Your task to perform on an android device: Add "dell xps" to the cart on bestbuy.com, then select checkout. Image 0: 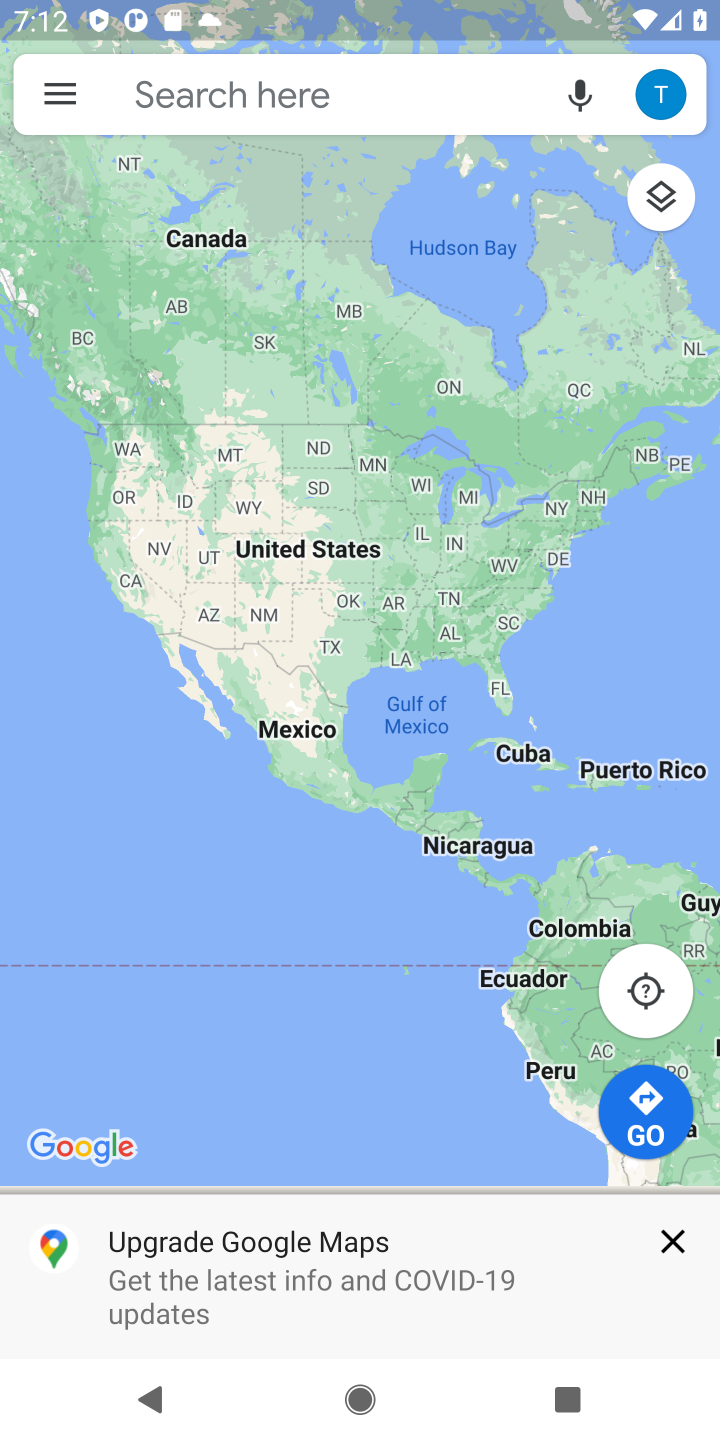
Step 0: press home button
Your task to perform on an android device: Add "dell xps" to the cart on bestbuy.com, then select checkout. Image 1: 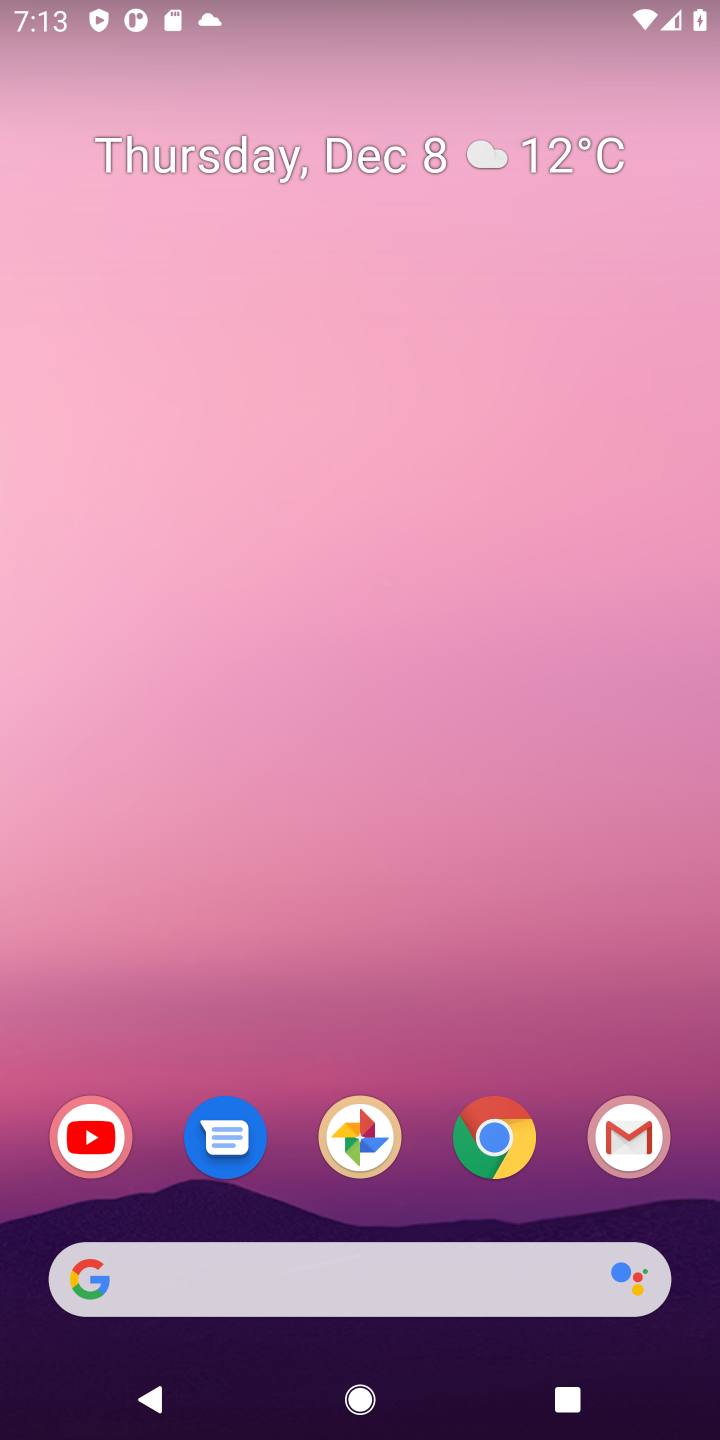
Step 1: click (484, 1154)
Your task to perform on an android device: Add "dell xps" to the cart on bestbuy.com, then select checkout. Image 2: 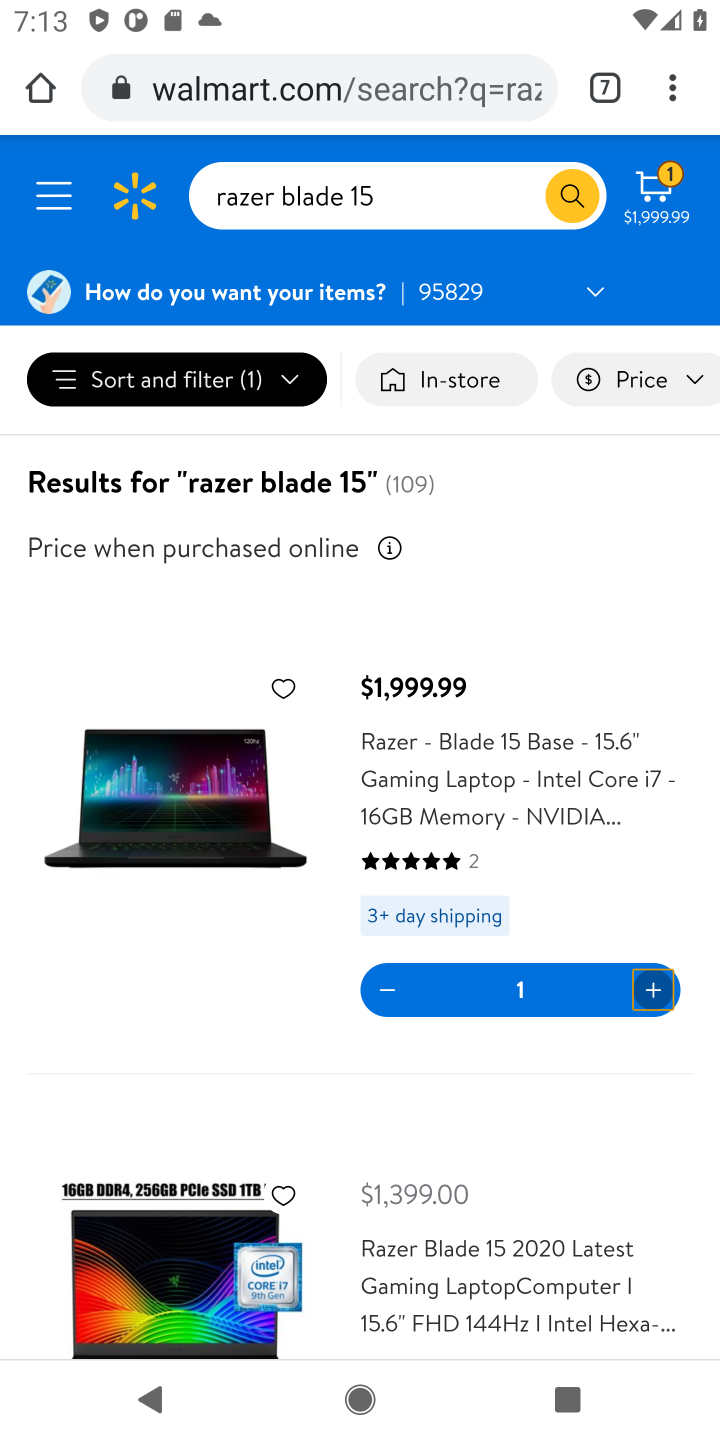
Step 2: click (594, 70)
Your task to perform on an android device: Add "dell xps" to the cart on bestbuy.com, then select checkout. Image 3: 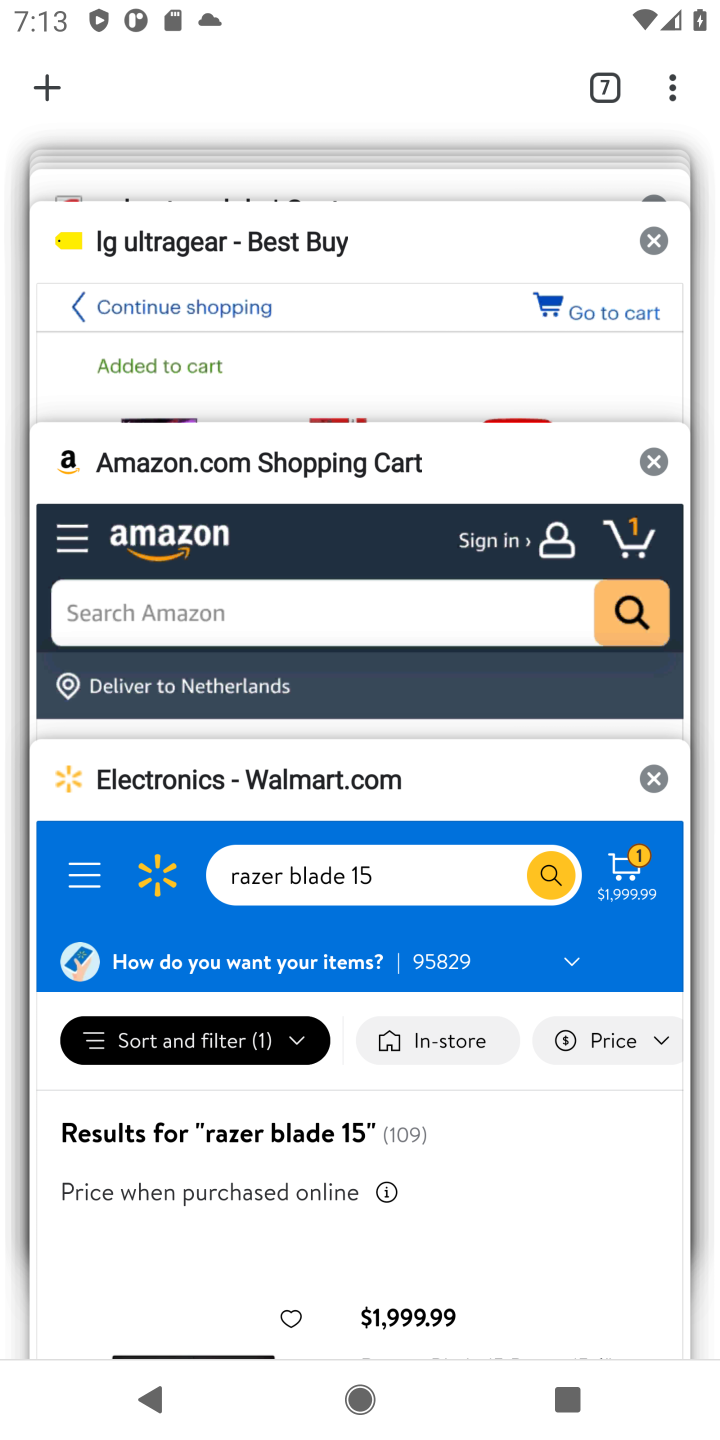
Step 3: click (367, 283)
Your task to perform on an android device: Add "dell xps" to the cart on bestbuy.com, then select checkout. Image 4: 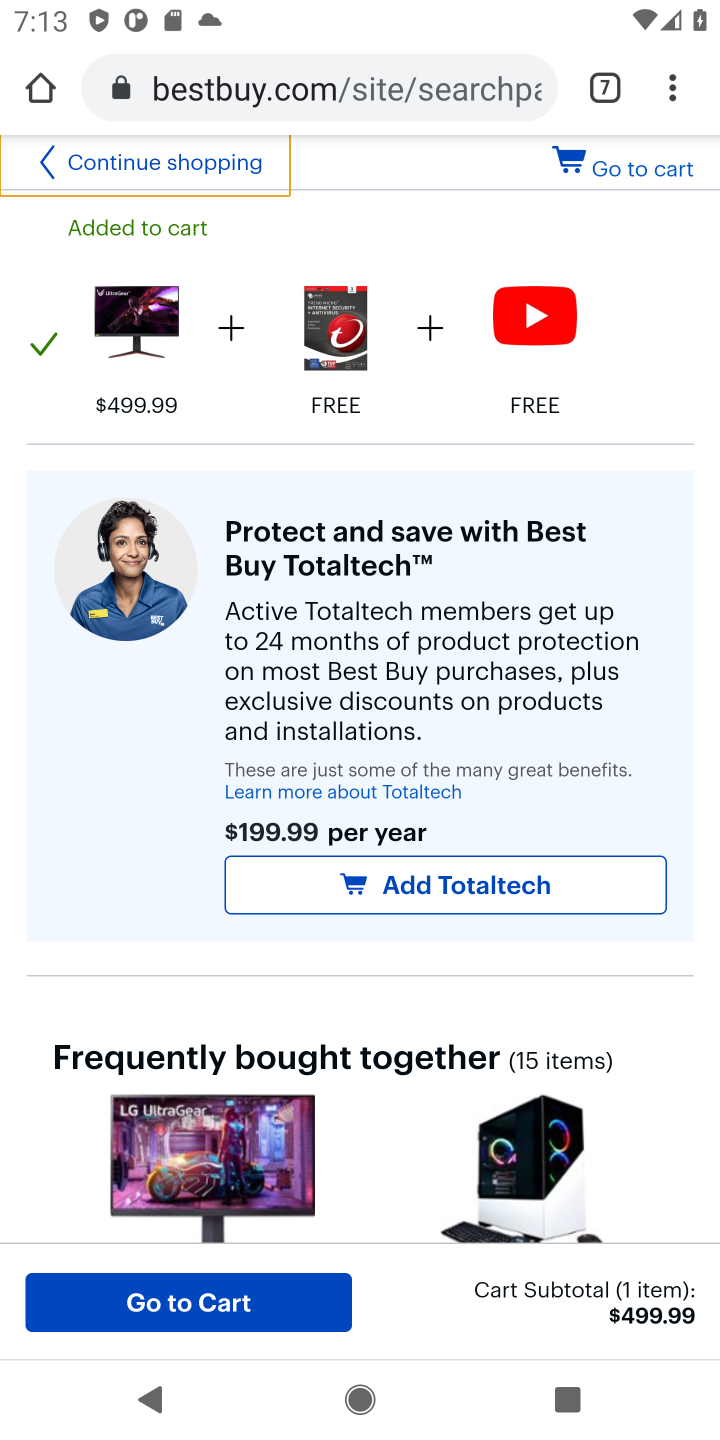
Step 4: click (230, 161)
Your task to perform on an android device: Add "dell xps" to the cart on bestbuy.com, then select checkout. Image 5: 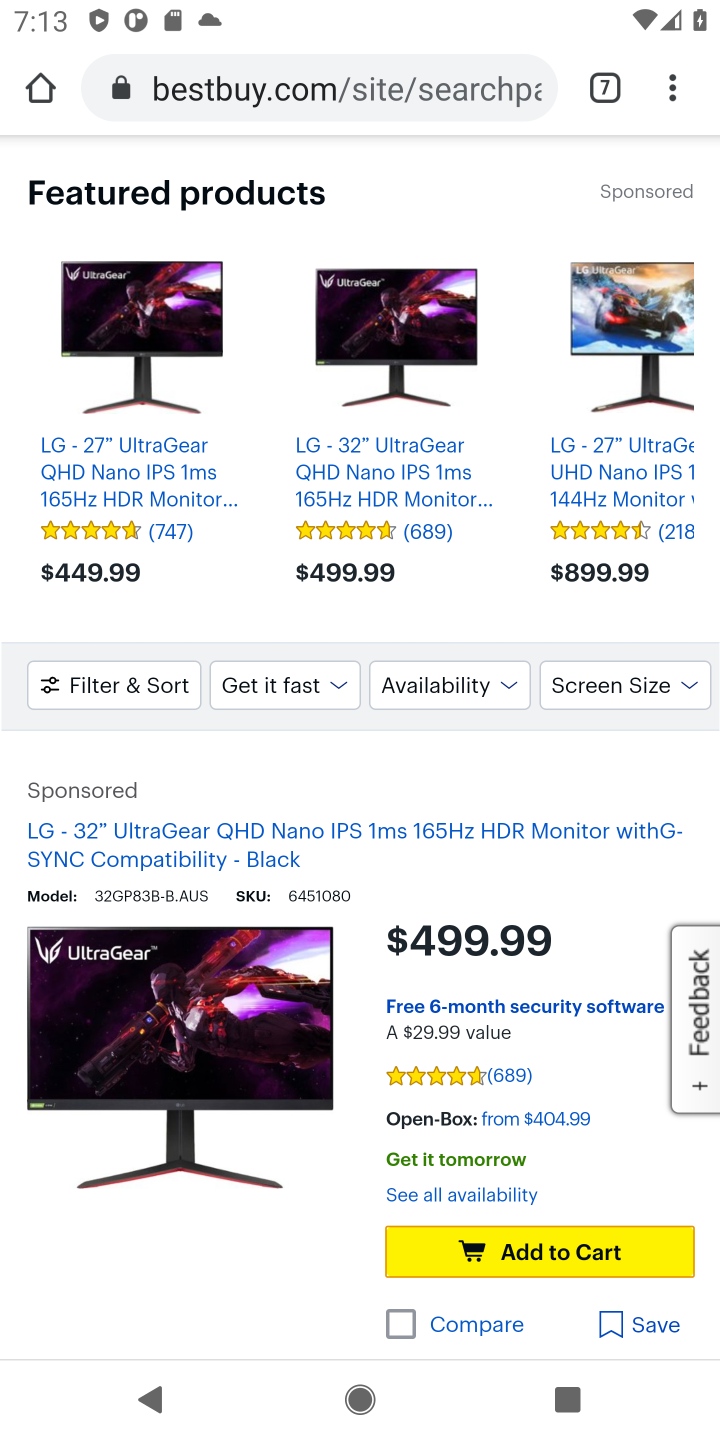
Step 5: drag from (321, 207) to (241, 770)
Your task to perform on an android device: Add "dell xps" to the cart on bestbuy.com, then select checkout. Image 6: 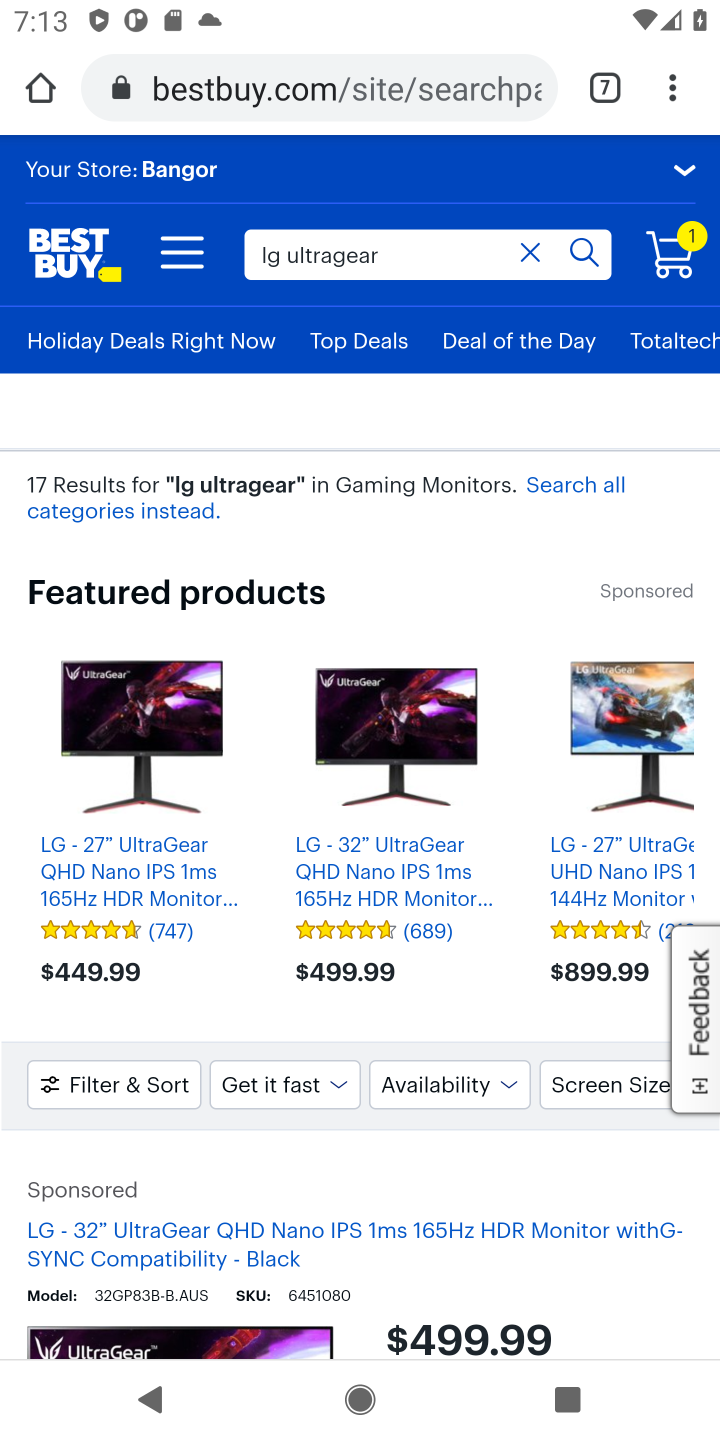
Step 6: click (535, 257)
Your task to perform on an android device: Add "dell xps" to the cart on bestbuy.com, then select checkout. Image 7: 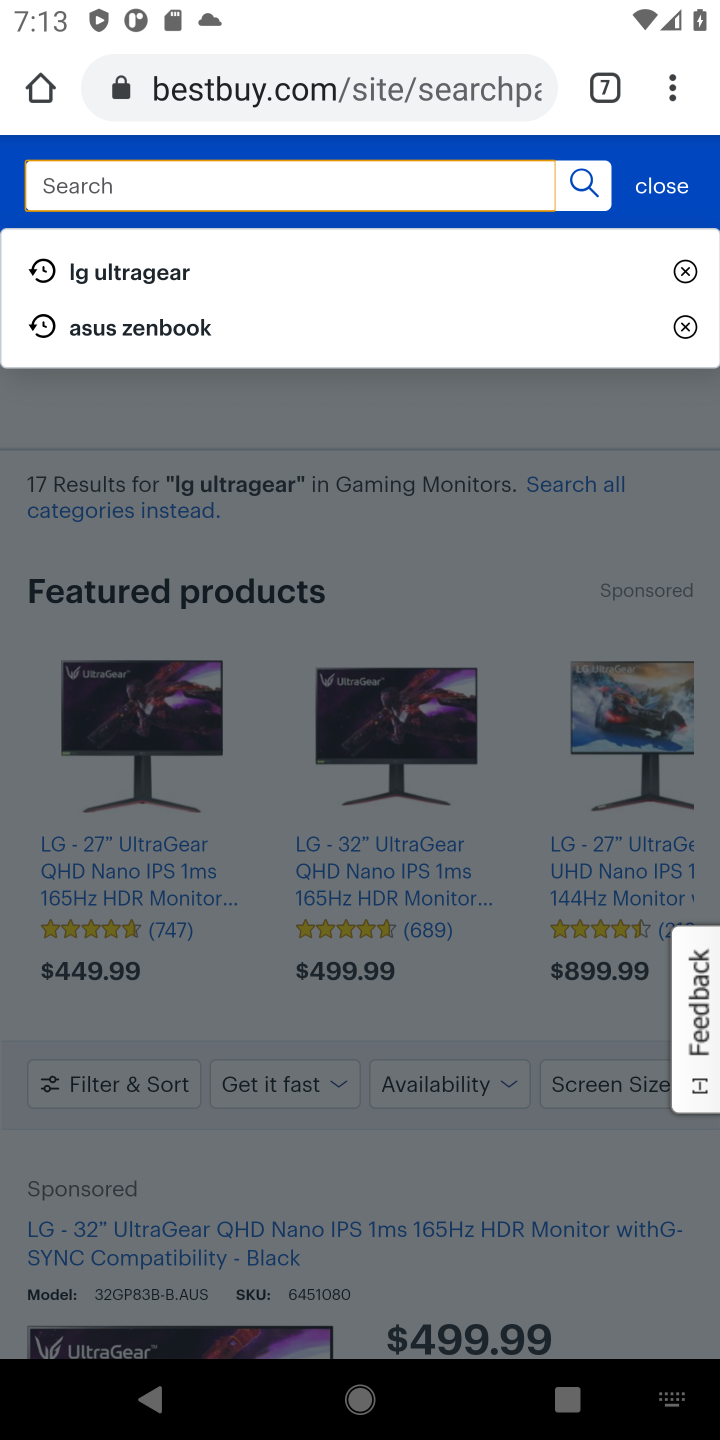
Step 7: type "dell xps"
Your task to perform on an android device: Add "dell xps" to the cart on bestbuy.com, then select checkout. Image 8: 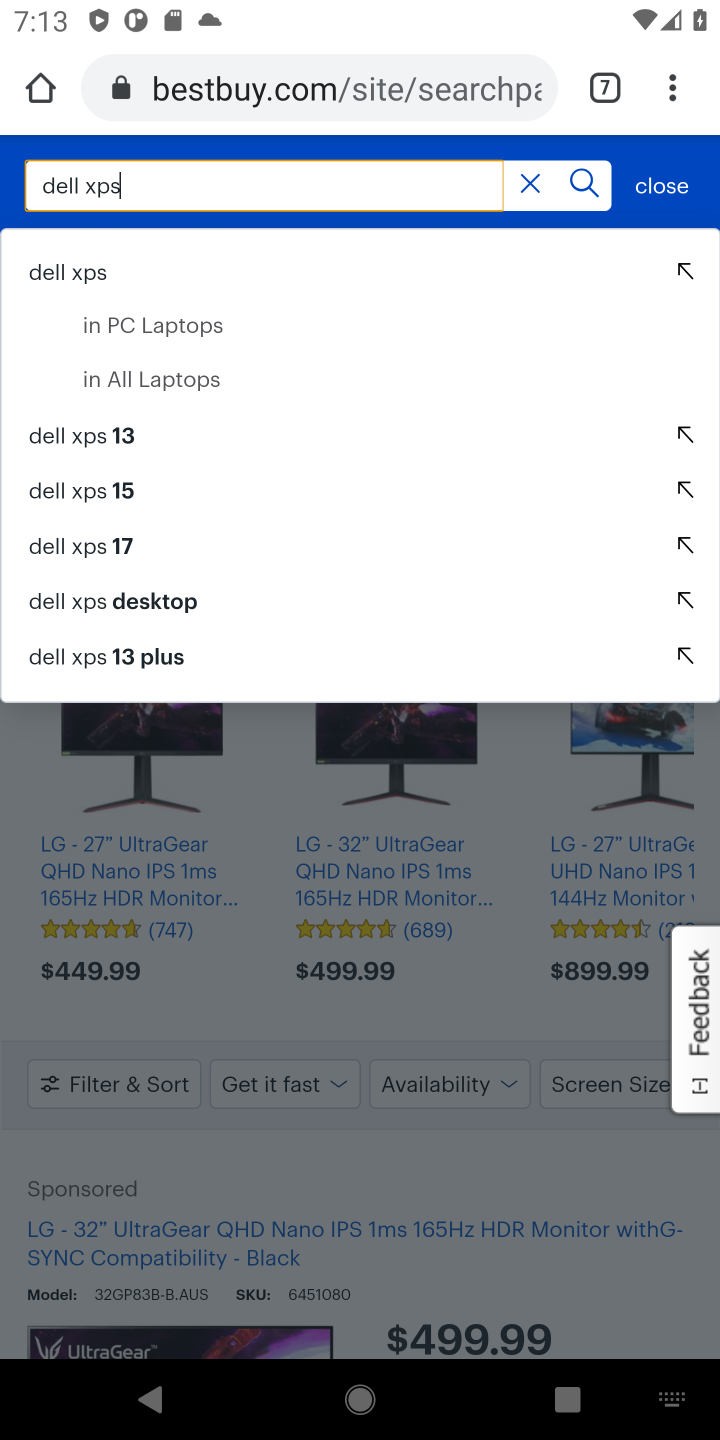
Step 8: click (65, 274)
Your task to perform on an android device: Add "dell xps" to the cart on bestbuy.com, then select checkout. Image 9: 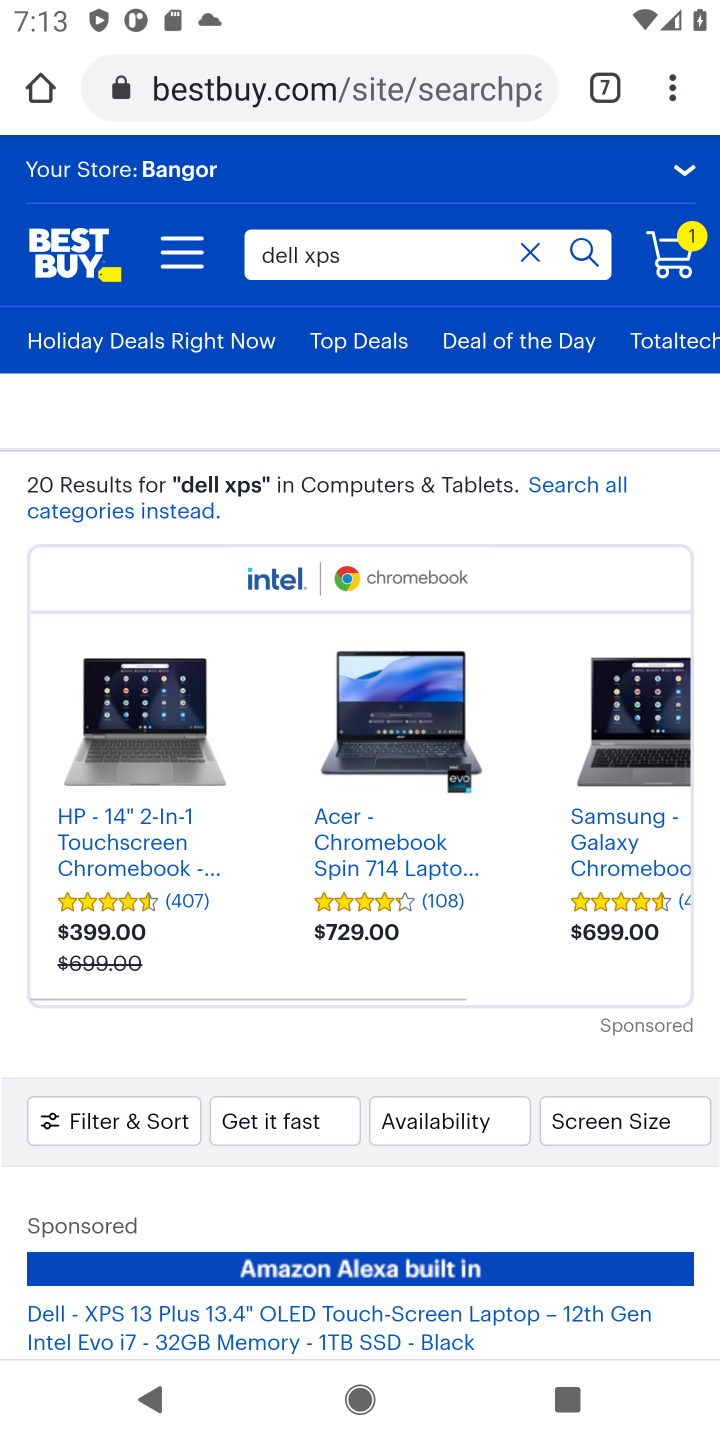
Step 9: drag from (495, 1287) to (590, 420)
Your task to perform on an android device: Add "dell xps" to the cart on bestbuy.com, then select checkout. Image 10: 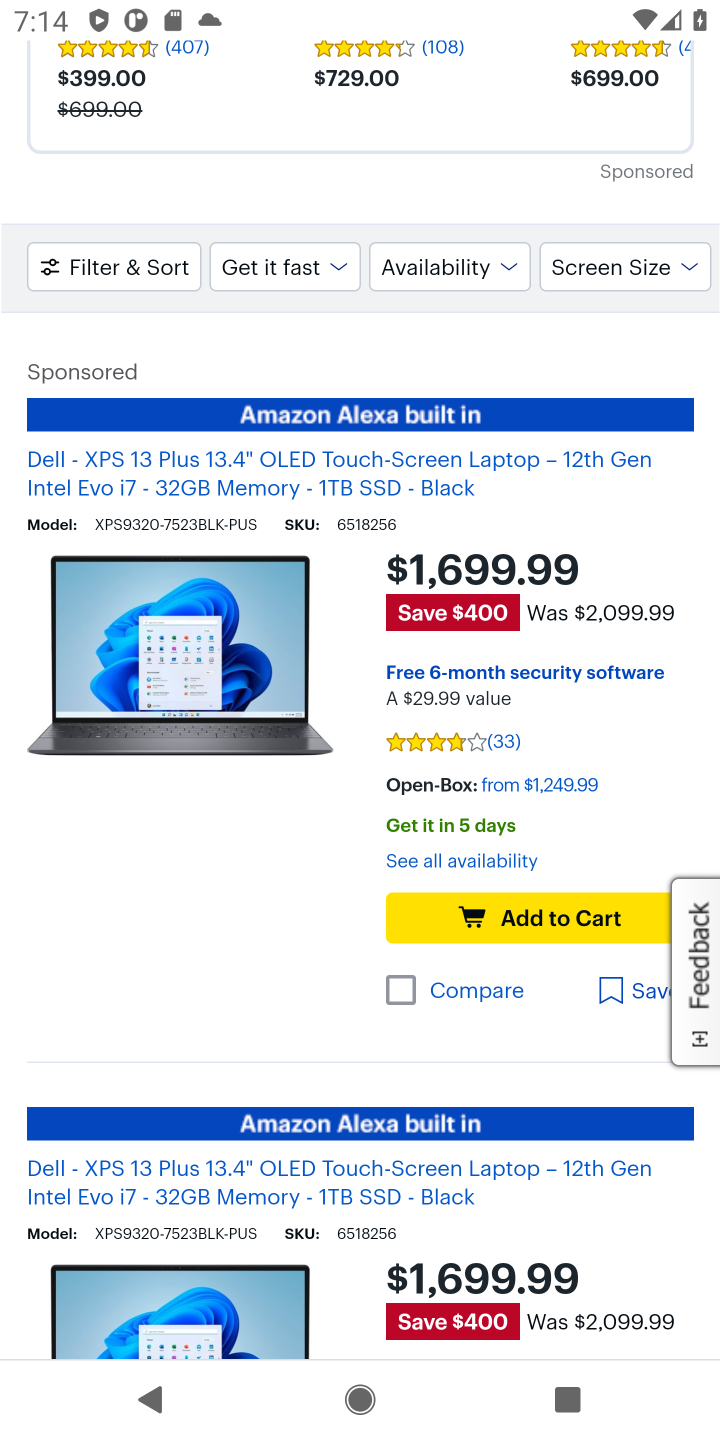
Step 10: click (566, 910)
Your task to perform on an android device: Add "dell xps" to the cart on bestbuy.com, then select checkout. Image 11: 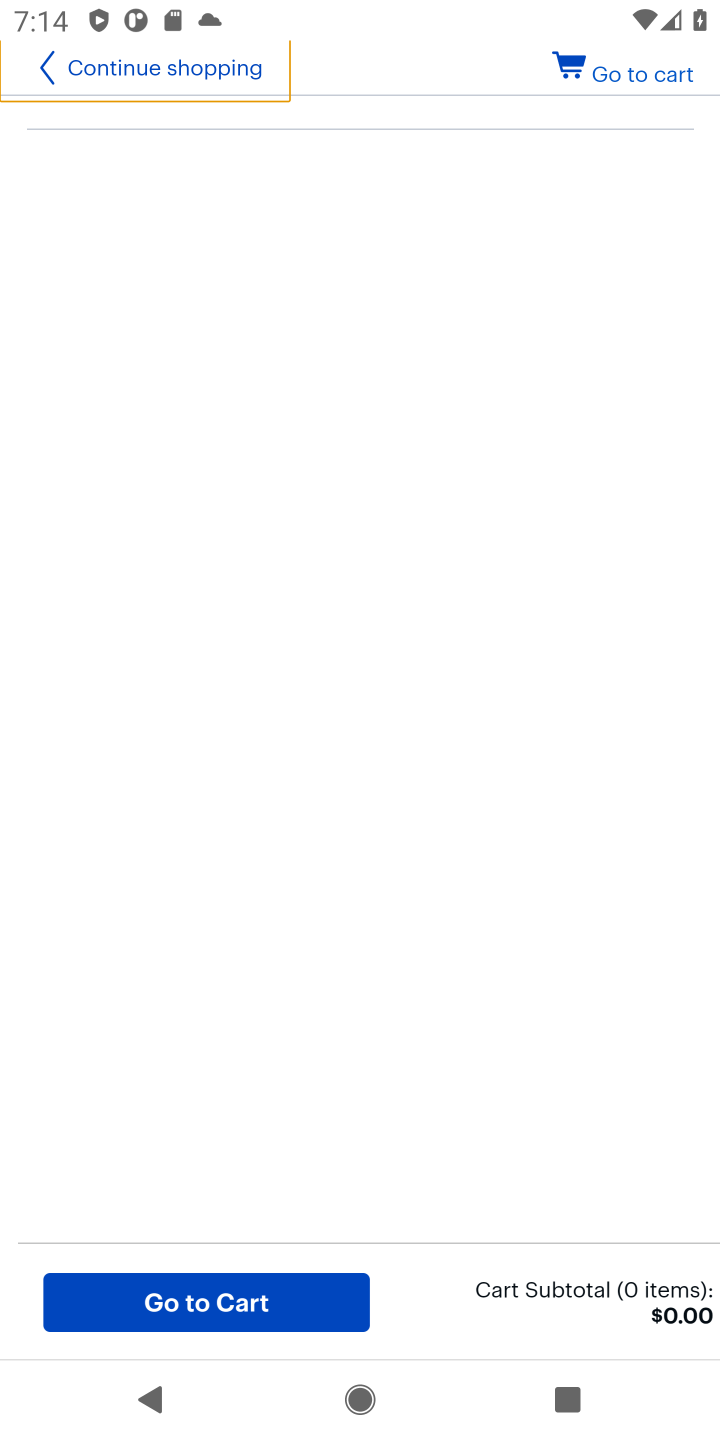
Step 11: task complete